Your task to perform on an android device: turn vacation reply on in the gmail app Image 0: 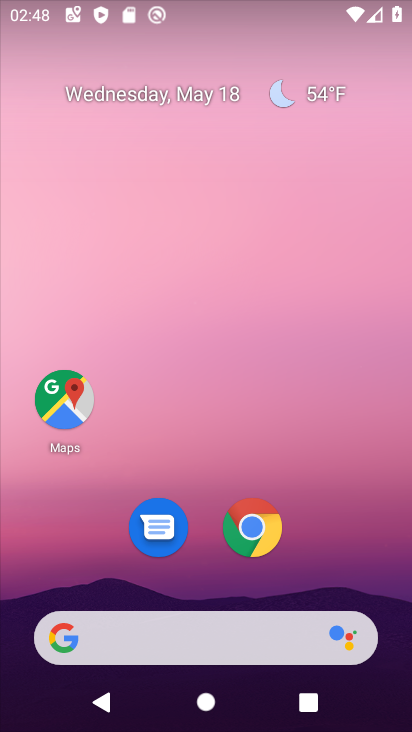
Step 0: drag from (189, 585) to (309, 11)
Your task to perform on an android device: turn vacation reply on in the gmail app Image 1: 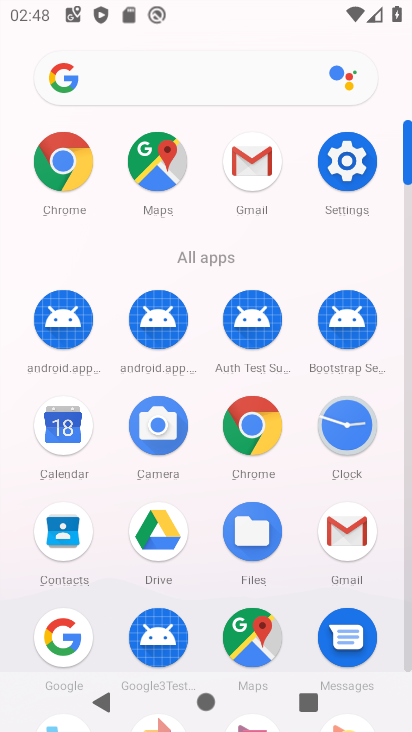
Step 1: click (343, 562)
Your task to perform on an android device: turn vacation reply on in the gmail app Image 2: 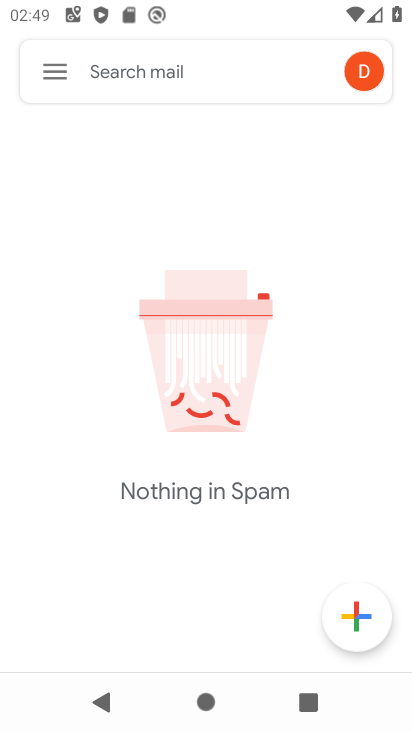
Step 2: click (44, 63)
Your task to perform on an android device: turn vacation reply on in the gmail app Image 3: 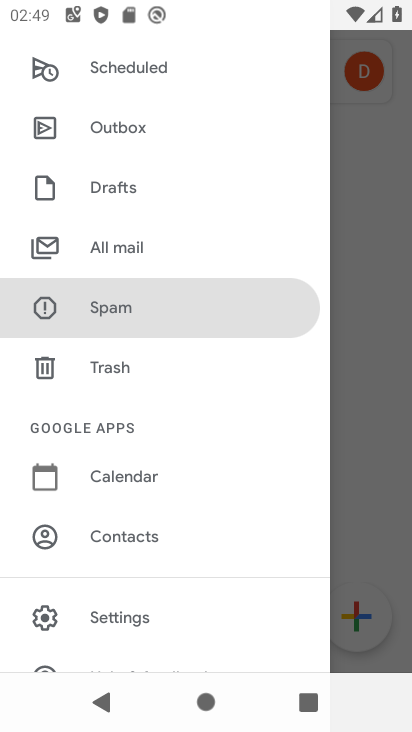
Step 3: click (117, 627)
Your task to perform on an android device: turn vacation reply on in the gmail app Image 4: 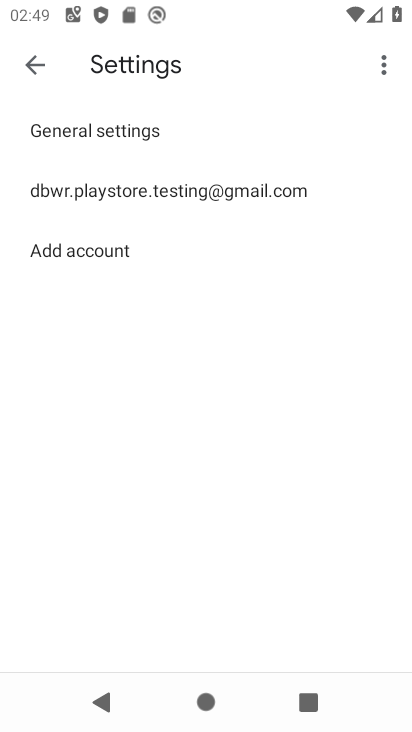
Step 4: click (94, 185)
Your task to perform on an android device: turn vacation reply on in the gmail app Image 5: 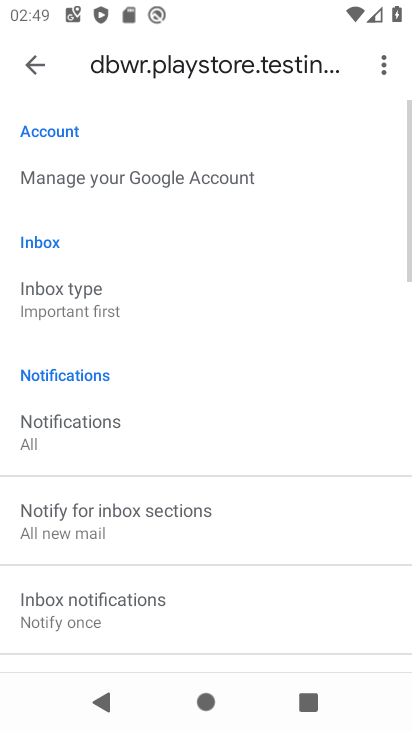
Step 5: drag from (152, 567) to (133, 177)
Your task to perform on an android device: turn vacation reply on in the gmail app Image 6: 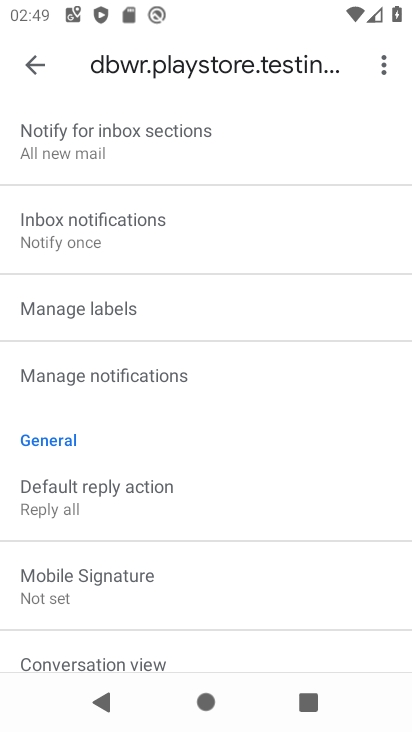
Step 6: drag from (150, 389) to (139, 158)
Your task to perform on an android device: turn vacation reply on in the gmail app Image 7: 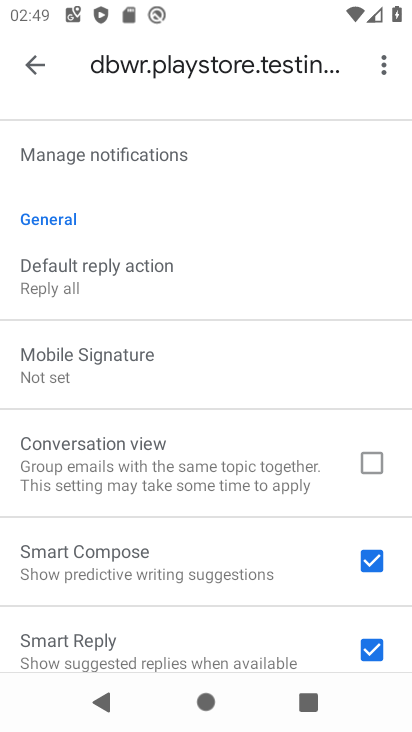
Step 7: drag from (172, 623) to (125, 226)
Your task to perform on an android device: turn vacation reply on in the gmail app Image 8: 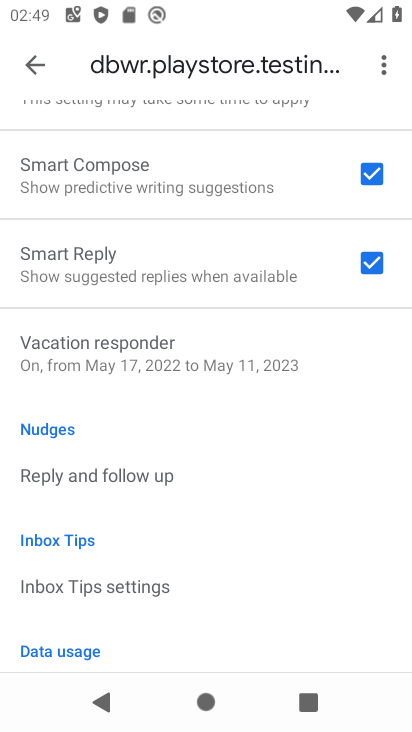
Step 8: click (136, 336)
Your task to perform on an android device: turn vacation reply on in the gmail app Image 9: 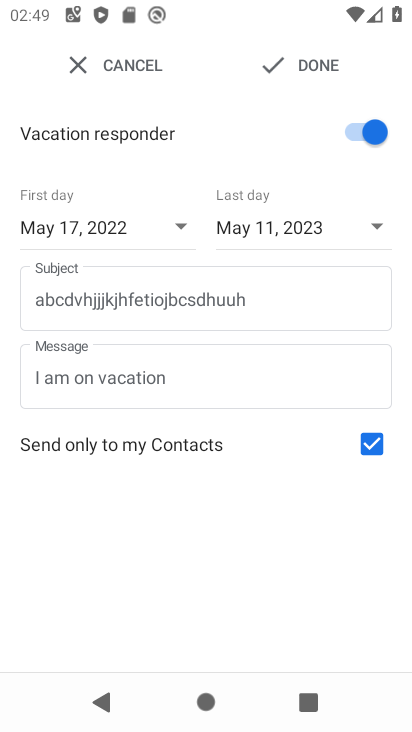
Step 9: click (292, 65)
Your task to perform on an android device: turn vacation reply on in the gmail app Image 10: 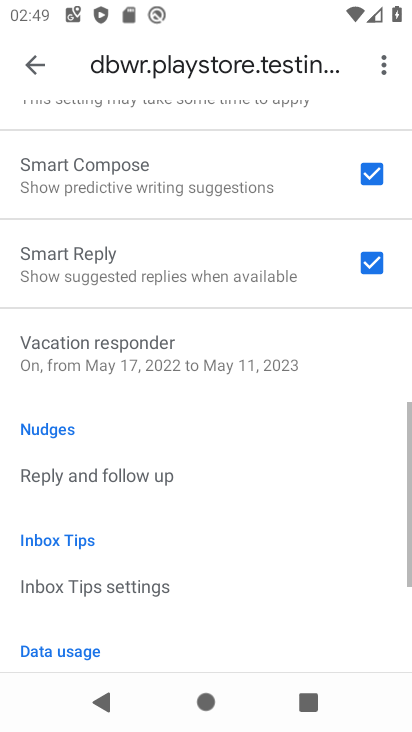
Step 10: task complete